Your task to perform on an android device: delete browsing data in the chrome app Image 0: 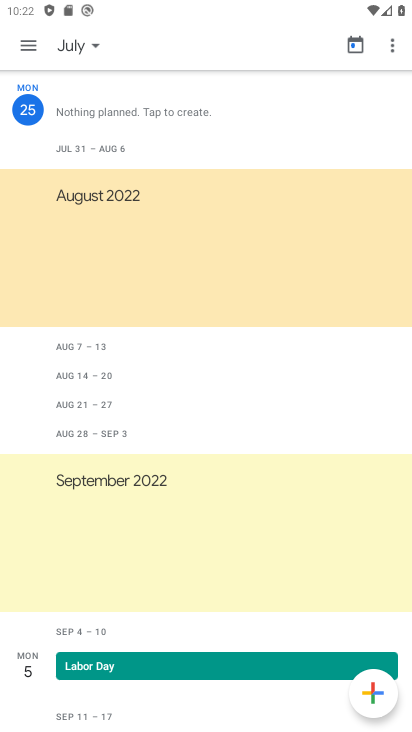
Step 0: press home button
Your task to perform on an android device: delete browsing data in the chrome app Image 1: 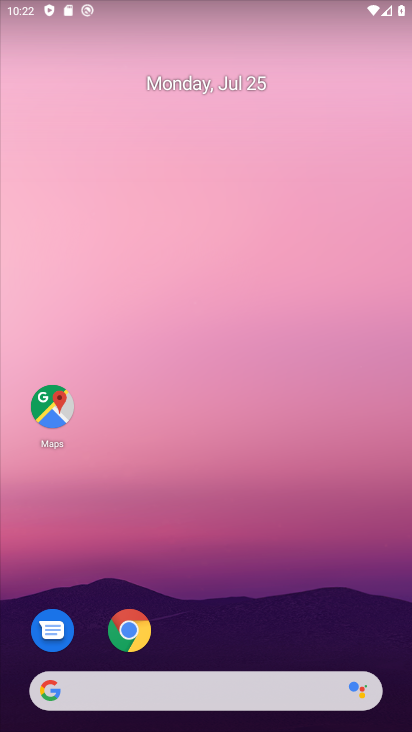
Step 1: click (135, 635)
Your task to perform on an android device: delete browsing data in the chrome app Image 2: 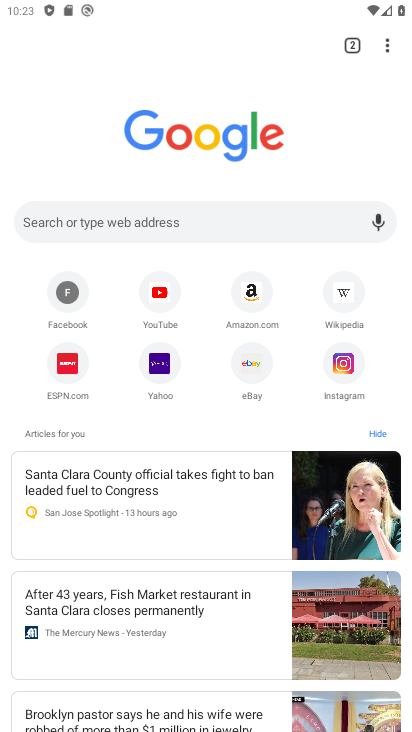
Step 2: drag from (389, 48) to (230, 250)
Your task to perform on an android device: delete browsing data in the chrome app Image 3: 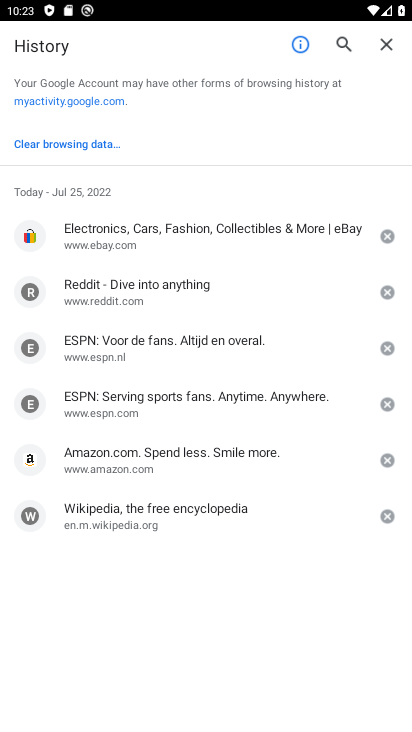
Step 3: click (55, 143)
Your task to perform on an android device: delete browsing data in the chrome app Image 4: 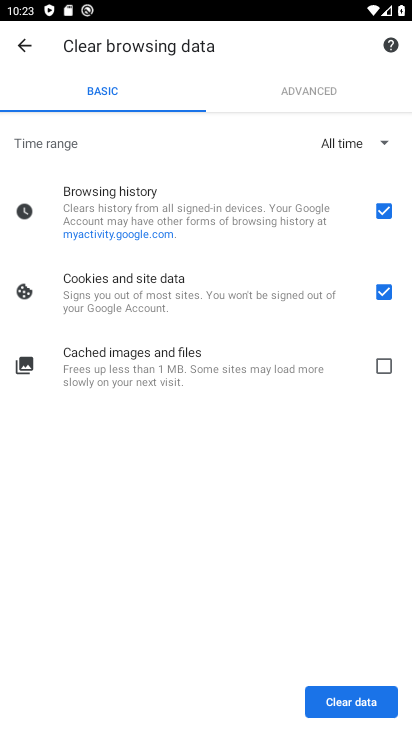
Step 4: click (355, 691)
Your task to perform on an android device: delete browsing data in the chrome app Image 5: 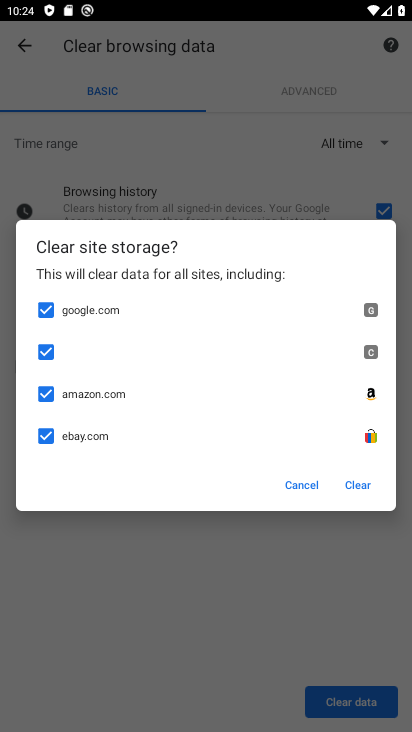
Step 5: click (353, 476)
Your task to perform on an android device: delete browsing data in the chrome app Image 6: 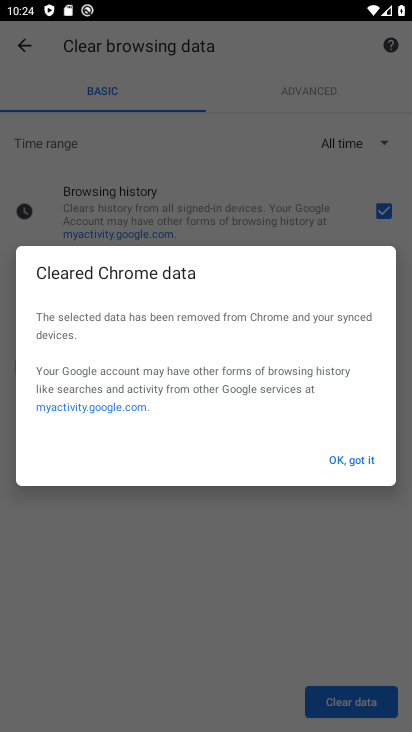
Step 6: click (364, 461)
Your task to perform on an android device: delete browsing data in the chrome app Image 7: 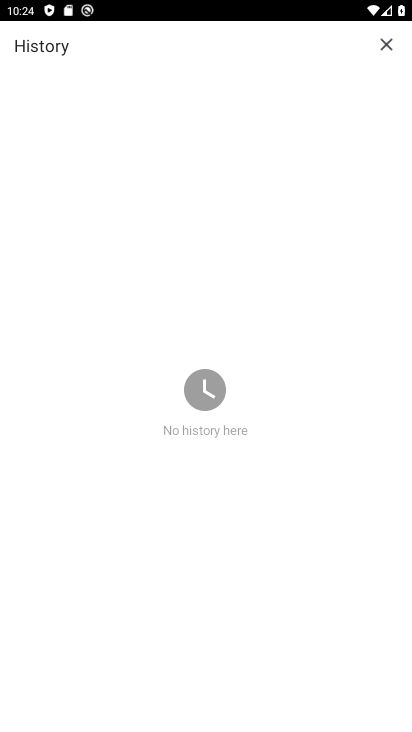
Step 7: task complete